Your task to perform on an android device: check storage Image 0: 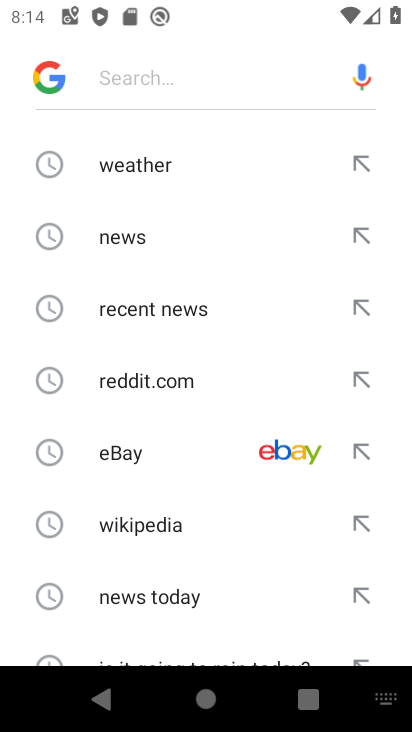
Step 0: press home button
Your task to perform on an android device: check storage Image 1: 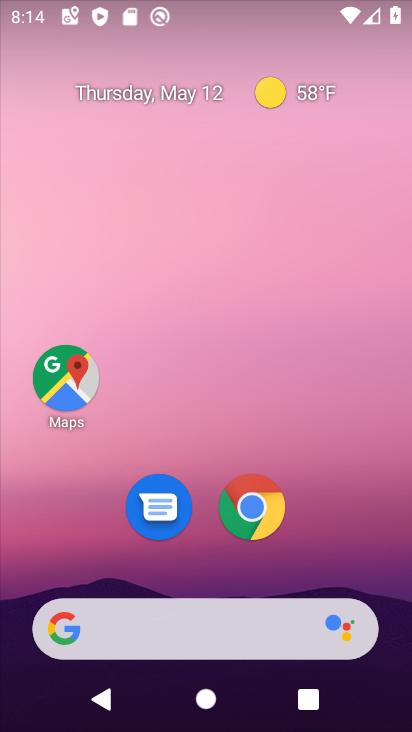
Step 1: drag from (203, 568) to (178, 172)
Your task to perform on an android device: check storage Image 2: 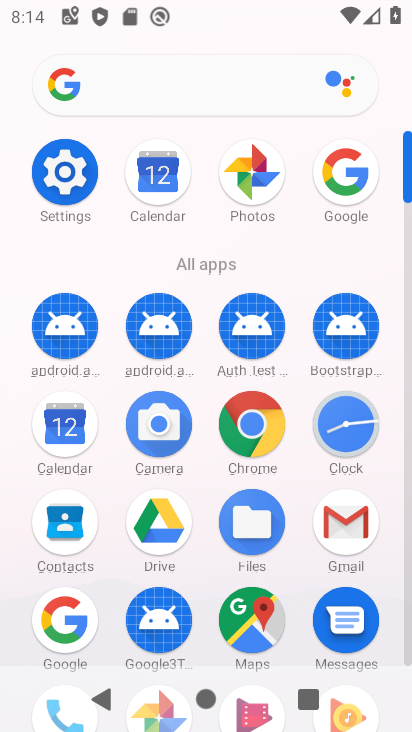
Step 2: click (62, 172)
Your task to perform on an android device: check storage Image 3: 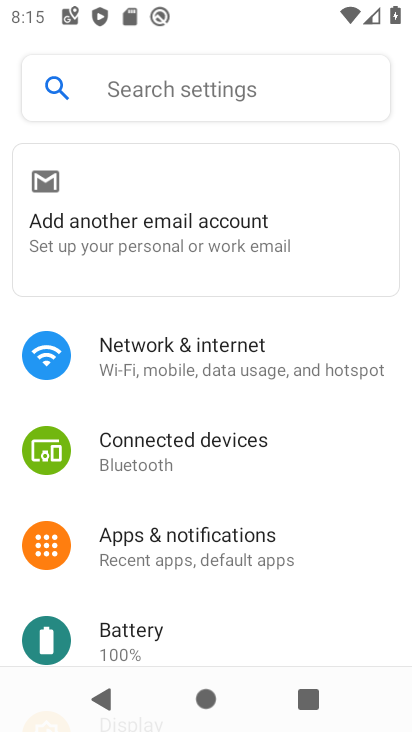
Step 3: drag from (230, 559) to (246, 251)
Your task to perform on an android device: check storage Image 4: 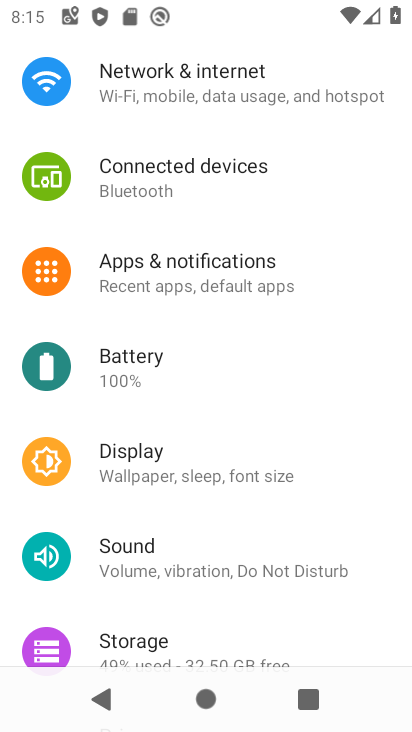
Step 4: drag from (195, 522) to (214, 315)
Your task to perform on an android device: check storage Image 5: 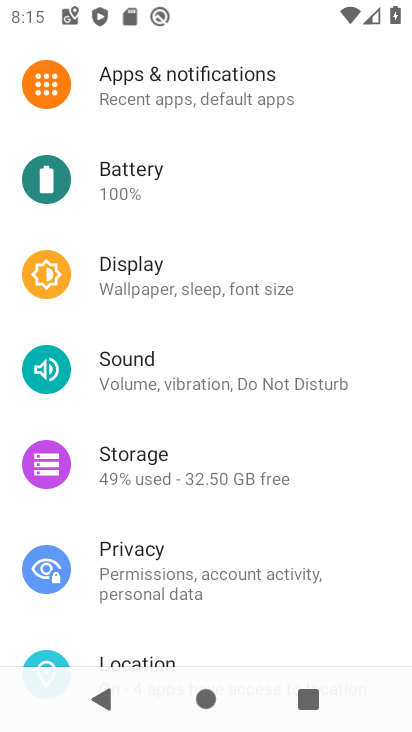
Step 5: click (172, 463)
Your task to perform on an android device: check storage Image 6: 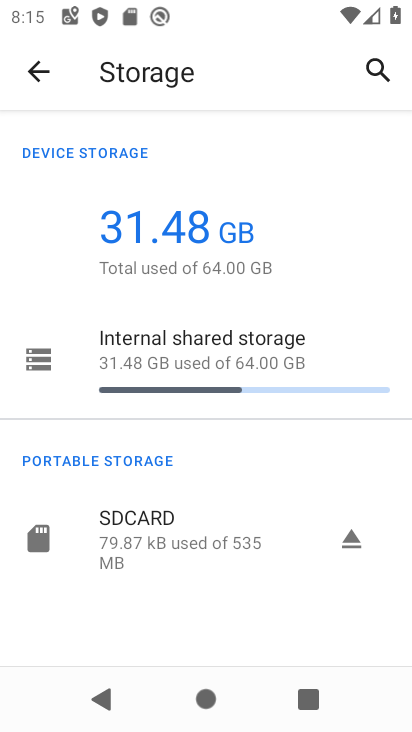
Step 6: task complete